Your task to perform on an android device: turn on location history Image 0: 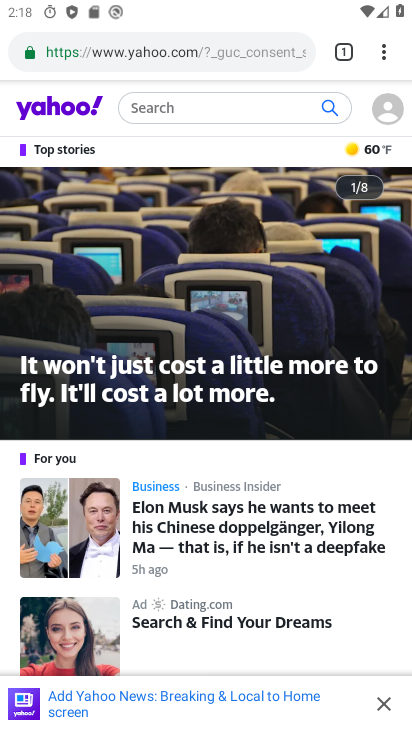
Step 0: press home button
Your task to perform on an android device: turn on location history Image 1: 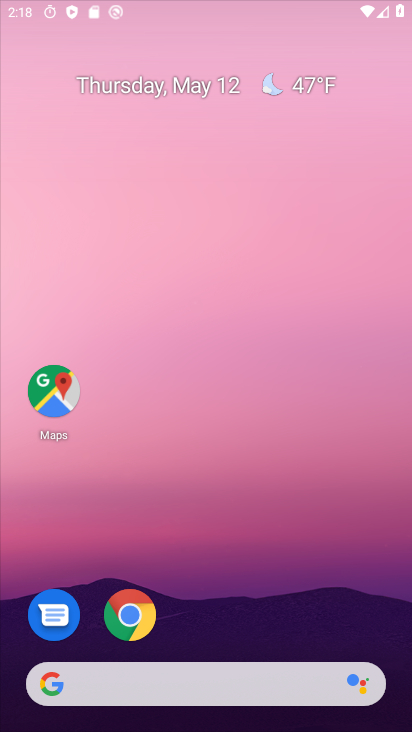
Step 1: drag from (264, 586) to (275, 77)
Your task to perform on an android device: turn on location history Image 2: 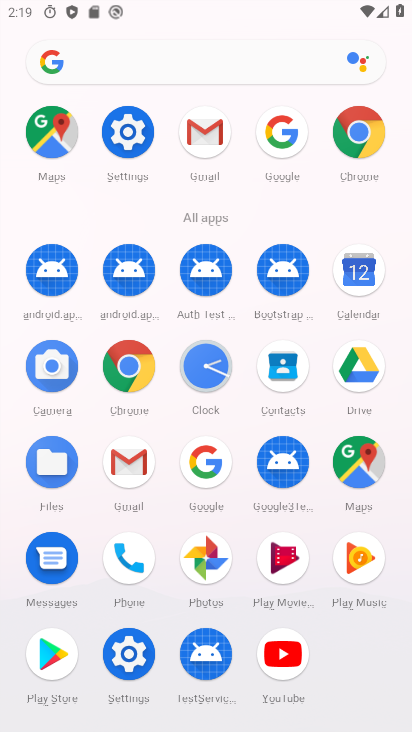
Step 2: click (131, 128)
Your task to perform on an android device: turn on location history Image 3: 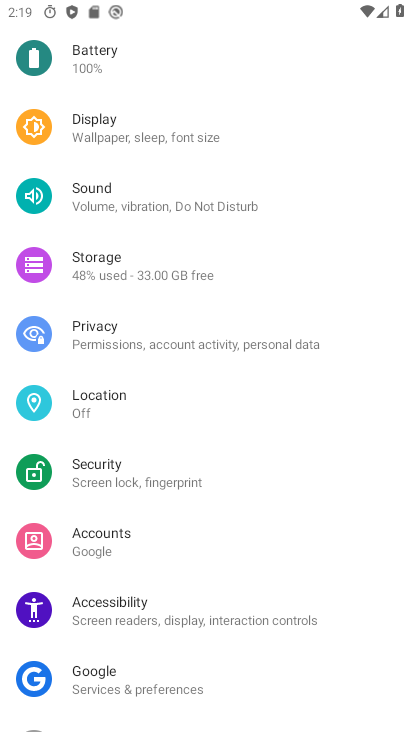
Step 3: click (154, 415)
Your task to perform on an android device: turn on location history Image 4: 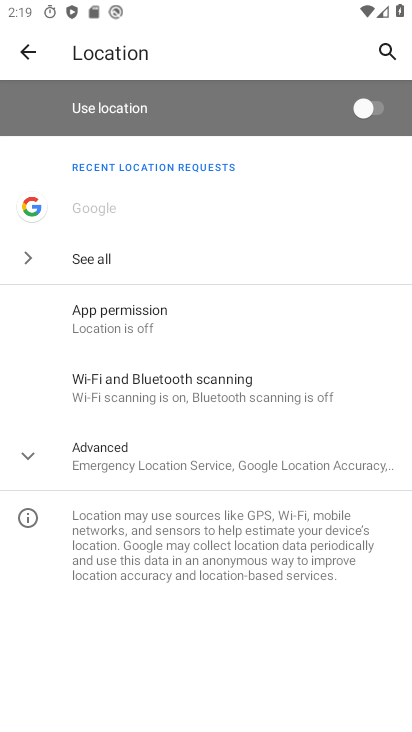
Step 4: click (198, 465)
Your task to perform on an android device: turn on location history Image 5: 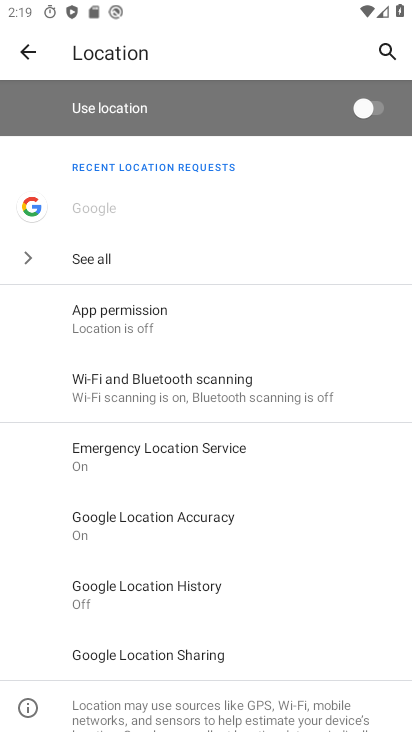
Step 5: click (197, 594)
Your task to perform on an android device: turn on location history Image 6: 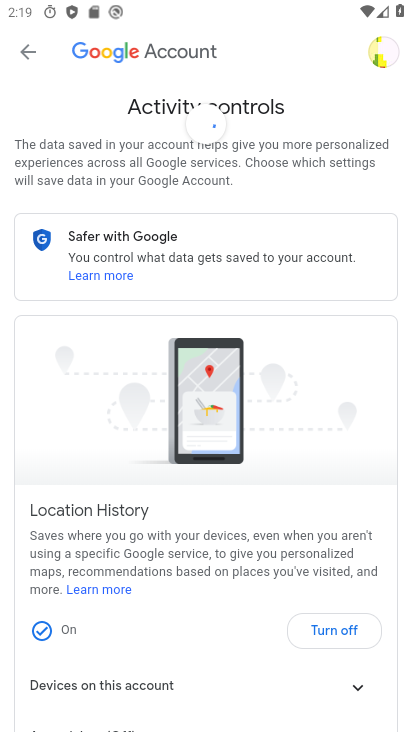
Step 6: click (322, 625)
Your task to perform on an android device: turn on location history Image 7: 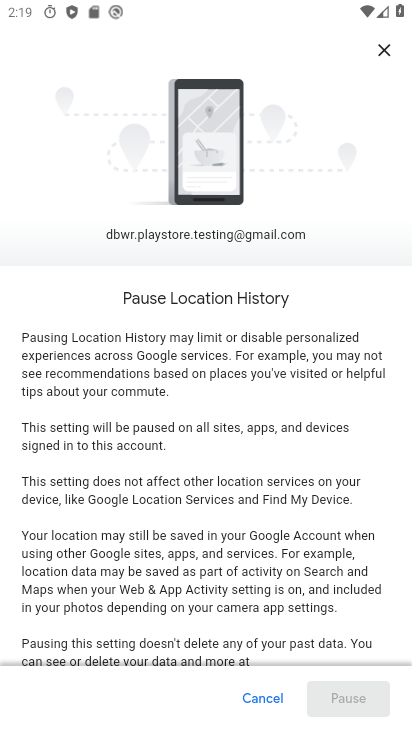
Step 7: click (242, 692)
Your task to perform on an android device: turn on location history Image 8: 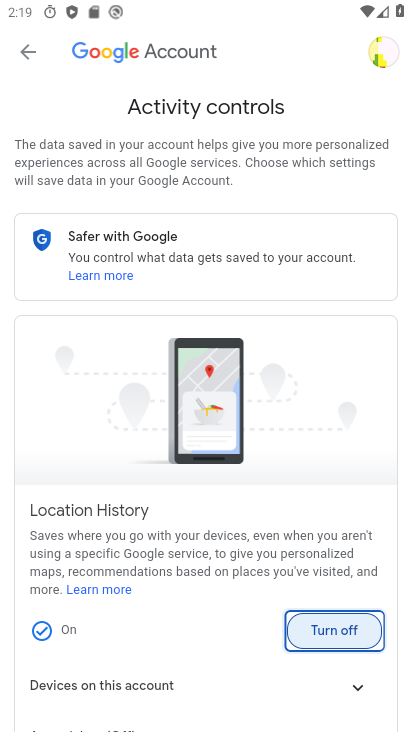
Step 8: task complete